Your task to perform on an android device: toggle priority inbox in the gmail app Image 0: 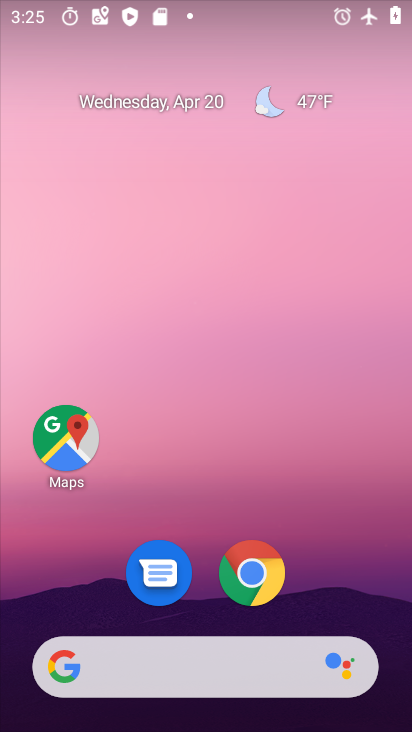
Step 0: drag from (195, 696) to (175, 131)
Your task to perform on an android device: toggle priority inbox in the gmail app Image 1: 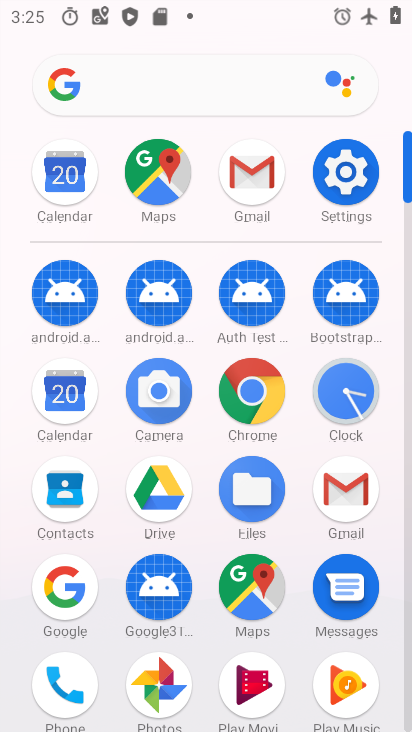
Step 1: click (341, 488)
Your task to perform on an android device: toggle priority inbox in the gmail app Image 2: 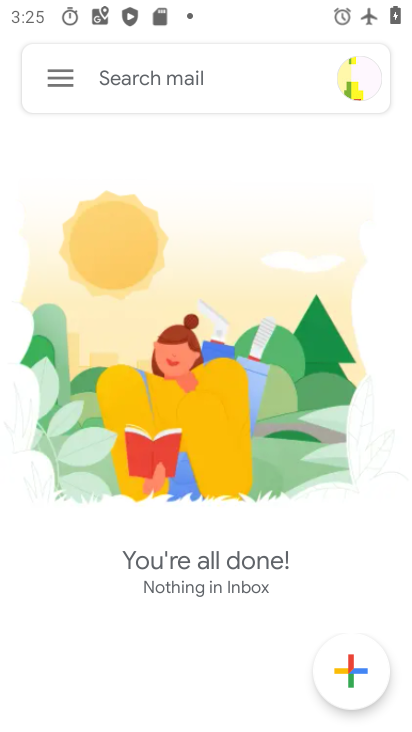
Step 2: click (58, 69)
Your task to perform on an android device: toggle priority inbox in the gmail app Image 3: 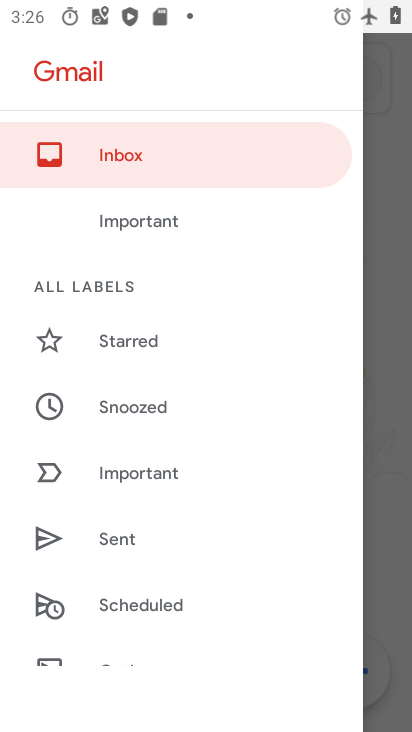
Step 3: drag from (169, 606) to (163, 173)
Your task to perform on an android device: toggle priority inbox in the gmail app Image 4: 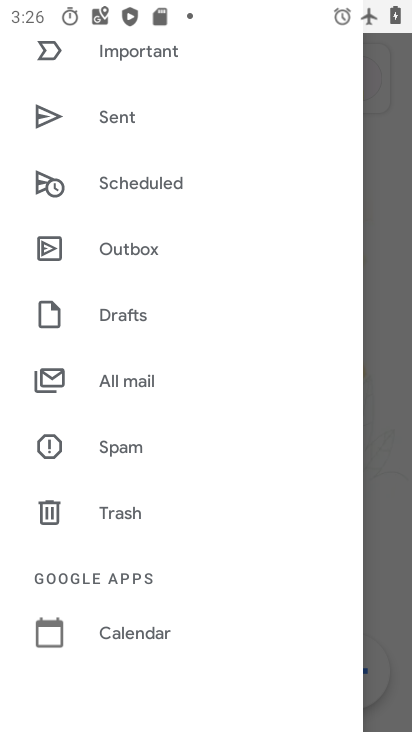
Step 4: drag from (132, 598) to (135, 208)
Your task to perform on an android device: toggle priority inbox in the gmail app Image 5: 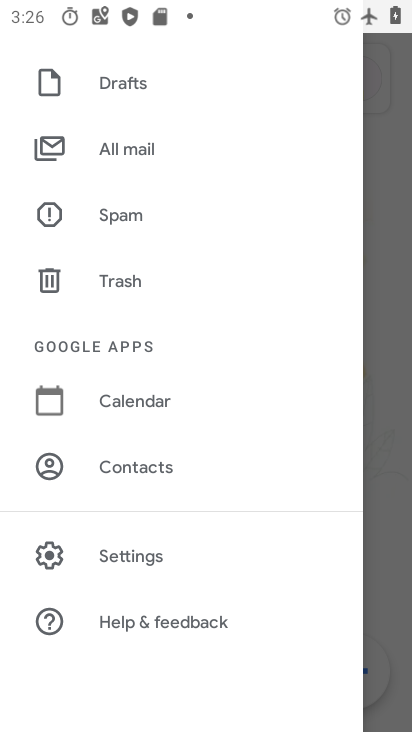
Step 5: click (139, 550)
Your task to perform on an android device: toggle priority inbox in the gmail app Image 6: 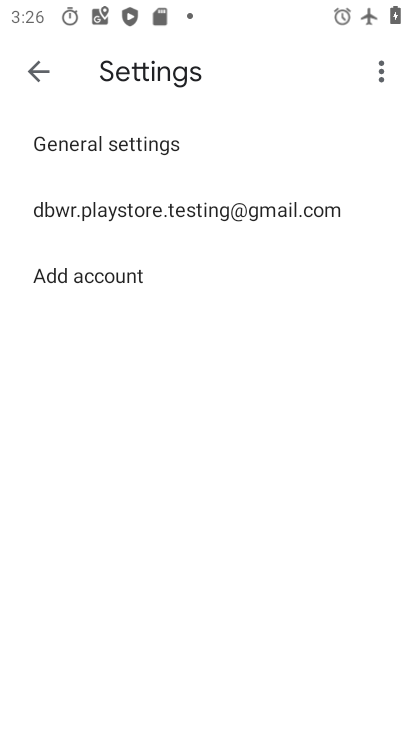
Step 6: click (172, 209)
Your task to perform on an android device: toggle priority inbox in the gmail app Image 7: 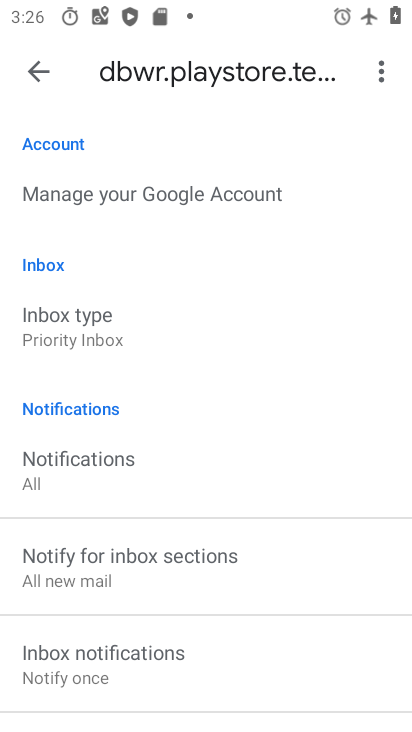
Step 7: click (95, 334)
Your task to perform on an android device: toggle priority inbox in the gmail app Image 8: 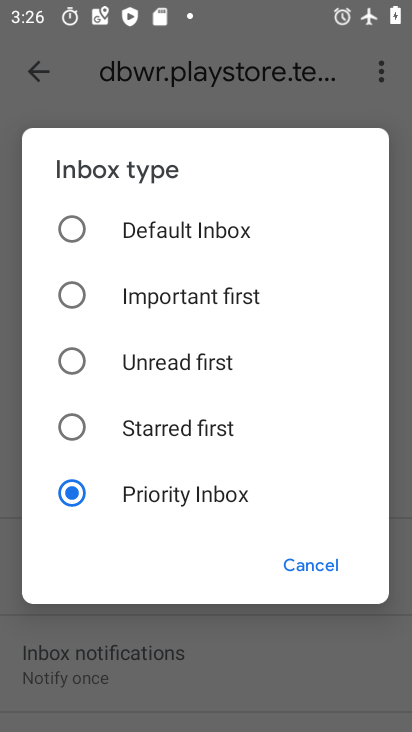
Step 8: click (69, 225)
Your task to perform on an android device: toggle priority inbox in the gmail app Image 9: 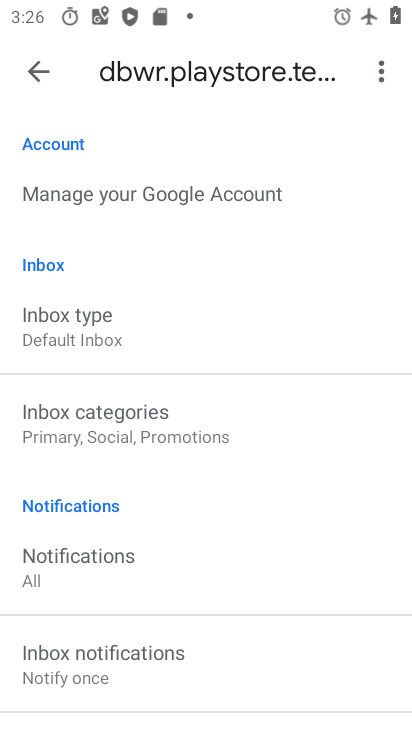
Step 9: task complete